Your task to perform on an android device: Go to Yahoo.com Image 0: 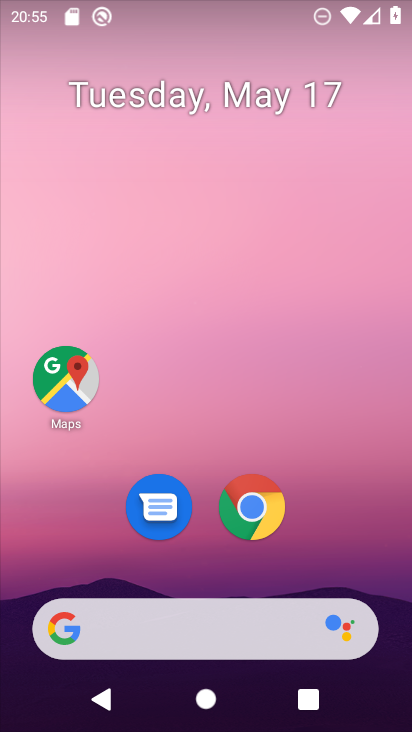
Step 0: click (260, 515)
Your task to perform on an android device: Go to Yahoo.com Image 1: 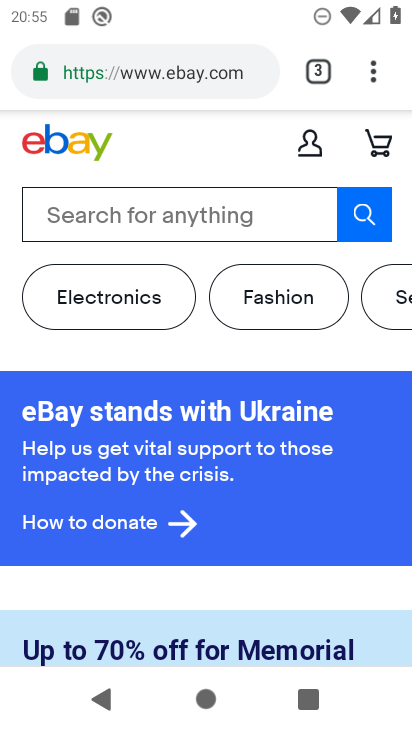
Step 1: click (101, 78)
Your task to perform on an android device: Go to Yahoo.com Image 2: 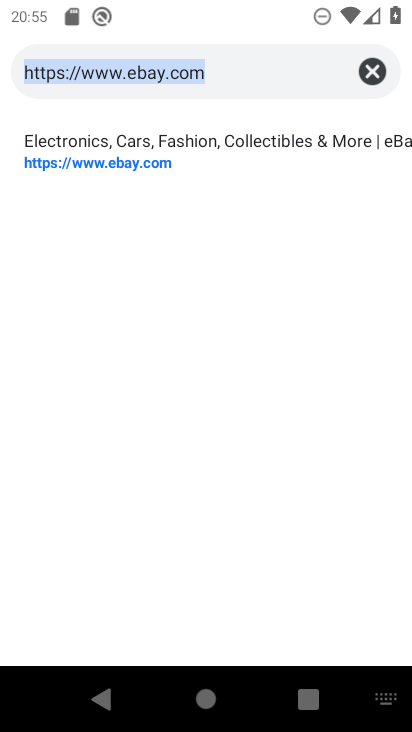
Step 2: click (373, 70)
Your task to perform on an android device: Go to Yahoo.com Image 3: 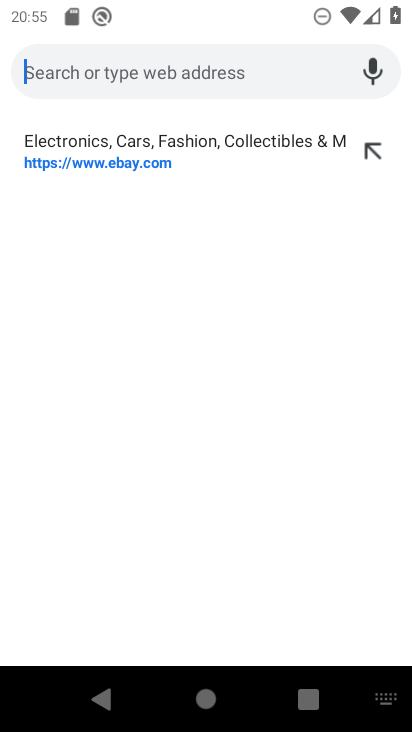
Step 3: click (91, 80)
Your task to perform on an android device: Go to Yahoo.com Image 4: 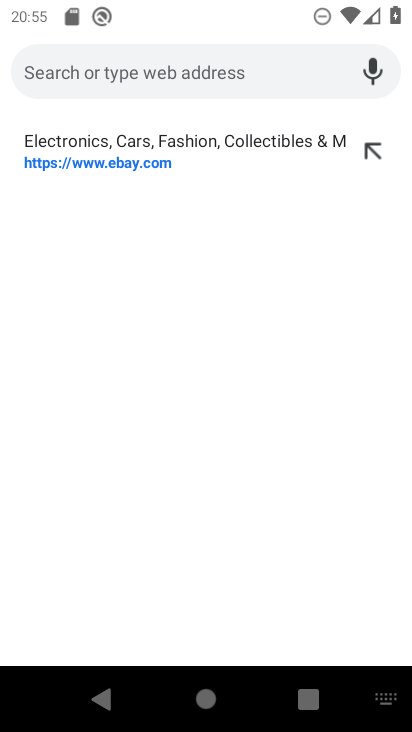
Step 4: type "yahoo.com"
Your task to perform on an android device: Go to Yahoo.com Image 5: 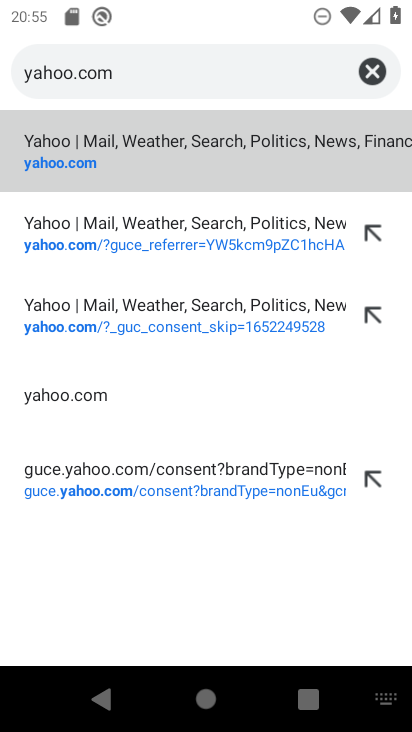
Step 5: click (93, 154)
Your task to perform on an android device: Go to Yahoo.com Image 6: 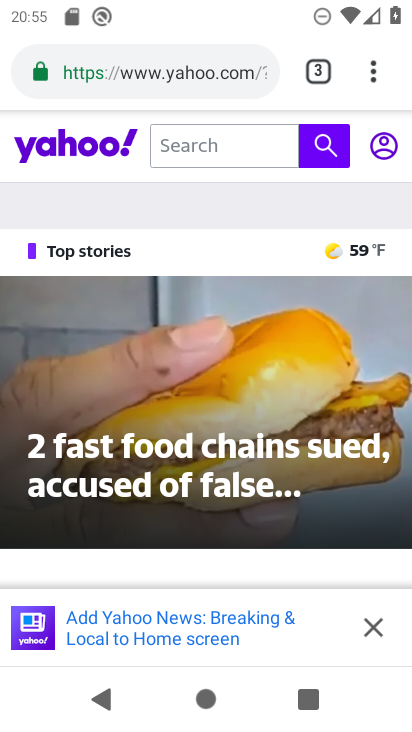
Step 6: task complete